Your task to perform on an android device: Open a new Chrome private tab Image 0: 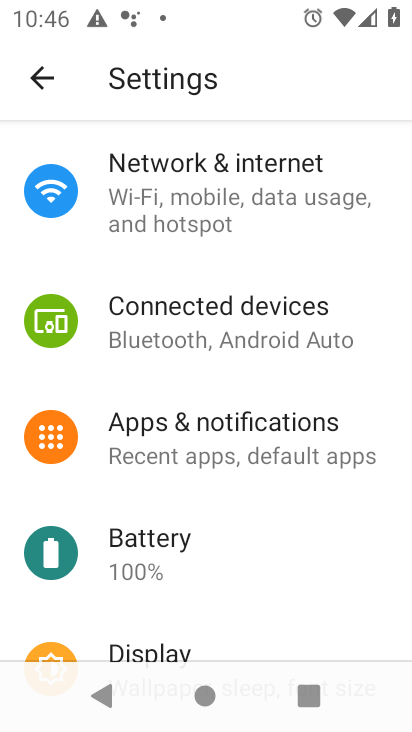
Step 0: press home button
Your task to perform on an android device: Open a new Chrome private tab Image 1: 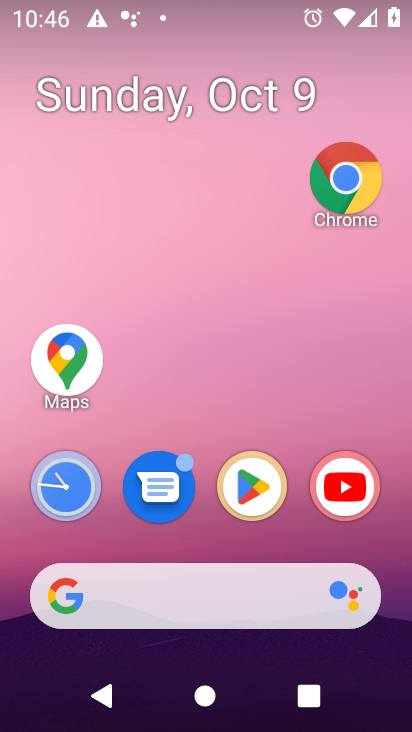
Step 1: drag from (280, 569) to (302, 106)
Your task to perform on an android device: Open a new Chrome private tab Image 2: 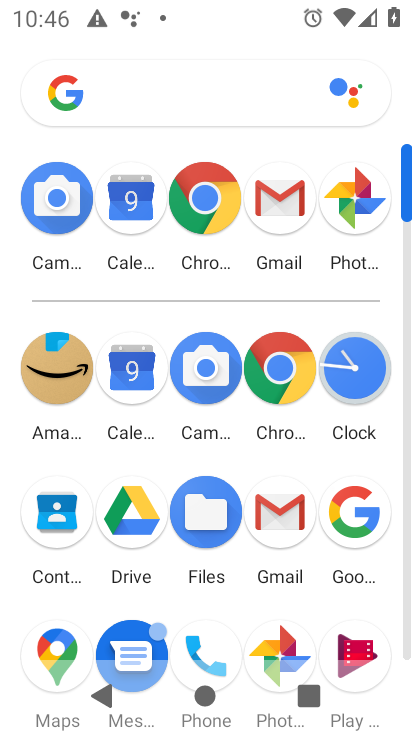
Step 2: click (207, 224)
Your task to perform on an android device: Open a new Chrome private tab Image 3: 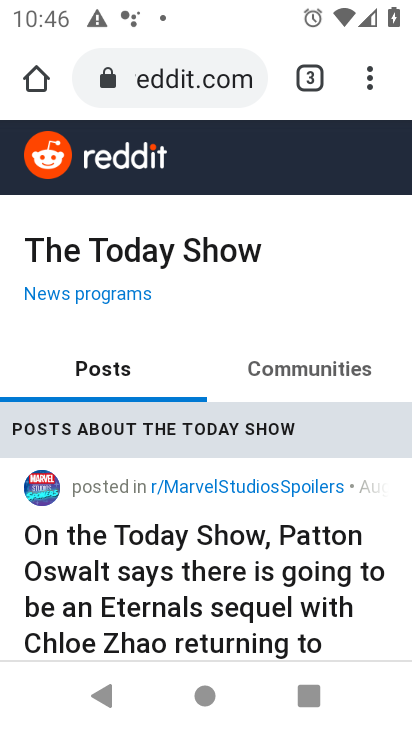
Step 3: drag from (317, 75) to (322, 110)
Your task to perform on an android device: Open a new Chrome private tab Image 4: 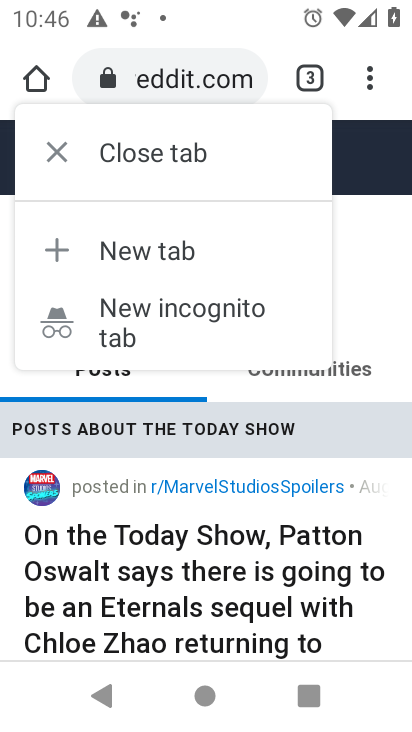
Step 4: click (166, 312)
Your task to perform on an android device: Open a new Chrome private tab Image 5: 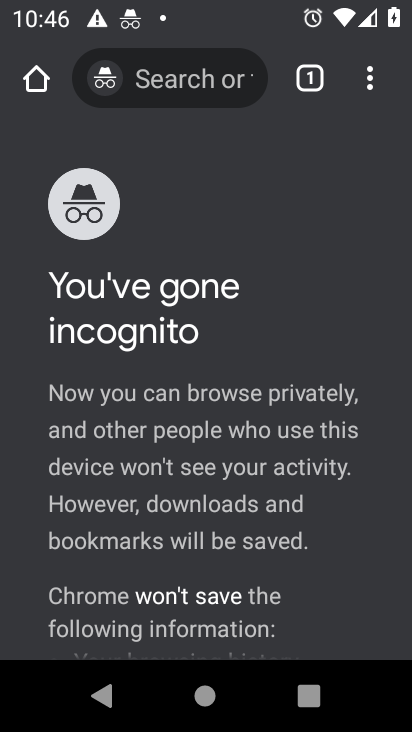
Step 5: task complete